Your task to perform on an android device: add a contact in the contacts app Image 0: 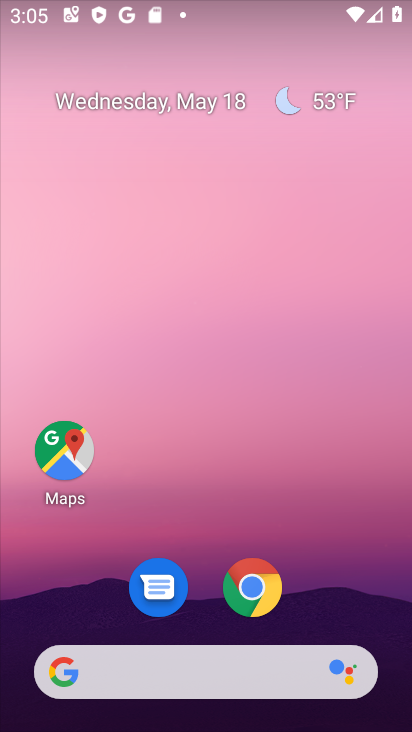
Step 0: drag from (169, 598) to (274, 155)
Your task to perform on an android device: add a contact in the contacts app Image 1: 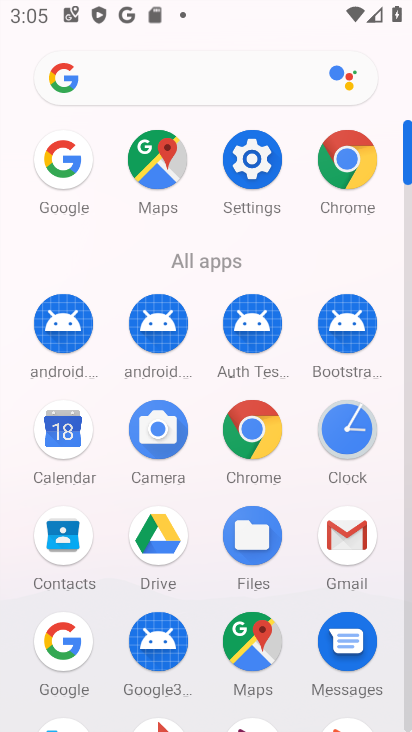
Step 1: click (63, 551)
Your task to perform on an android device: add a contact in the contacts app Image 2: 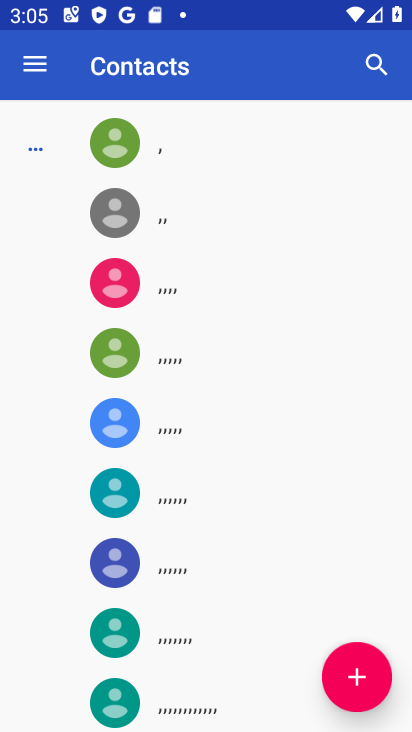
Step 2: click (351, 684)
Your task to perform on an android device: add a contact in the contacts app Image 3: 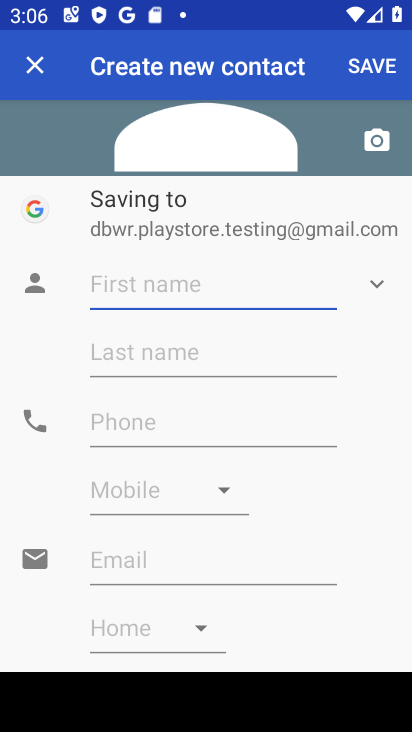
Step 3: type "hbjvjb"
Your task to perform on an android device: add a contact in the contacts app Image 4: 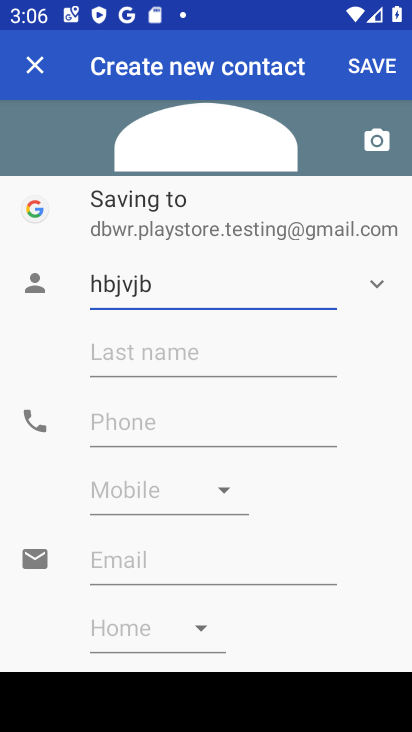
Step 4: click (197, 429)
Your task to perform on an android device: add a contact in the contacts app Image 5: 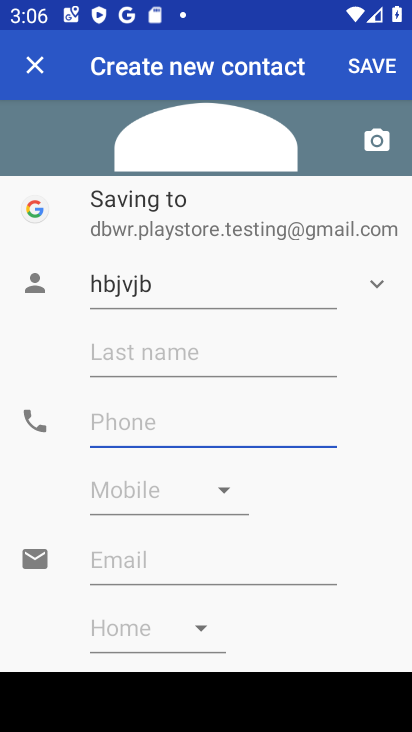
Step 5: type "9787879678"
Your task to perform on an android device: add a contact in the contacts app Image 6: 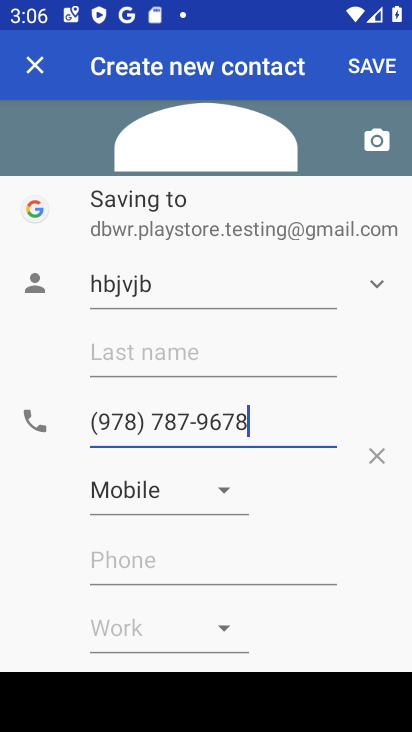
Step 6: click (376, 77)
Your task to perform on an android device: add a contact in the contacts app Image 7: 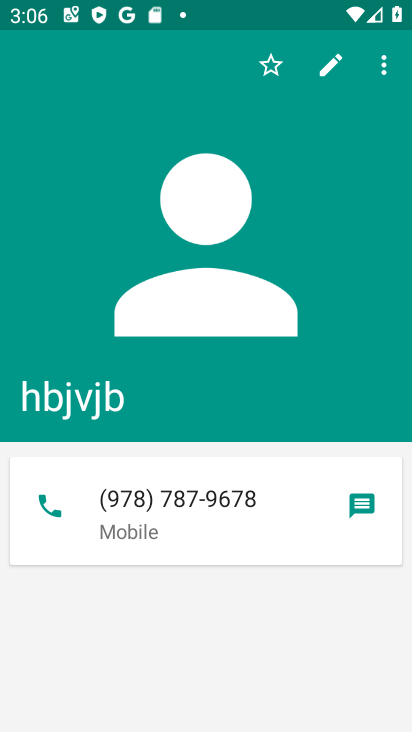
Step 7: task complete